Your task to perform on an android device: Do I have any events today? Image 0: 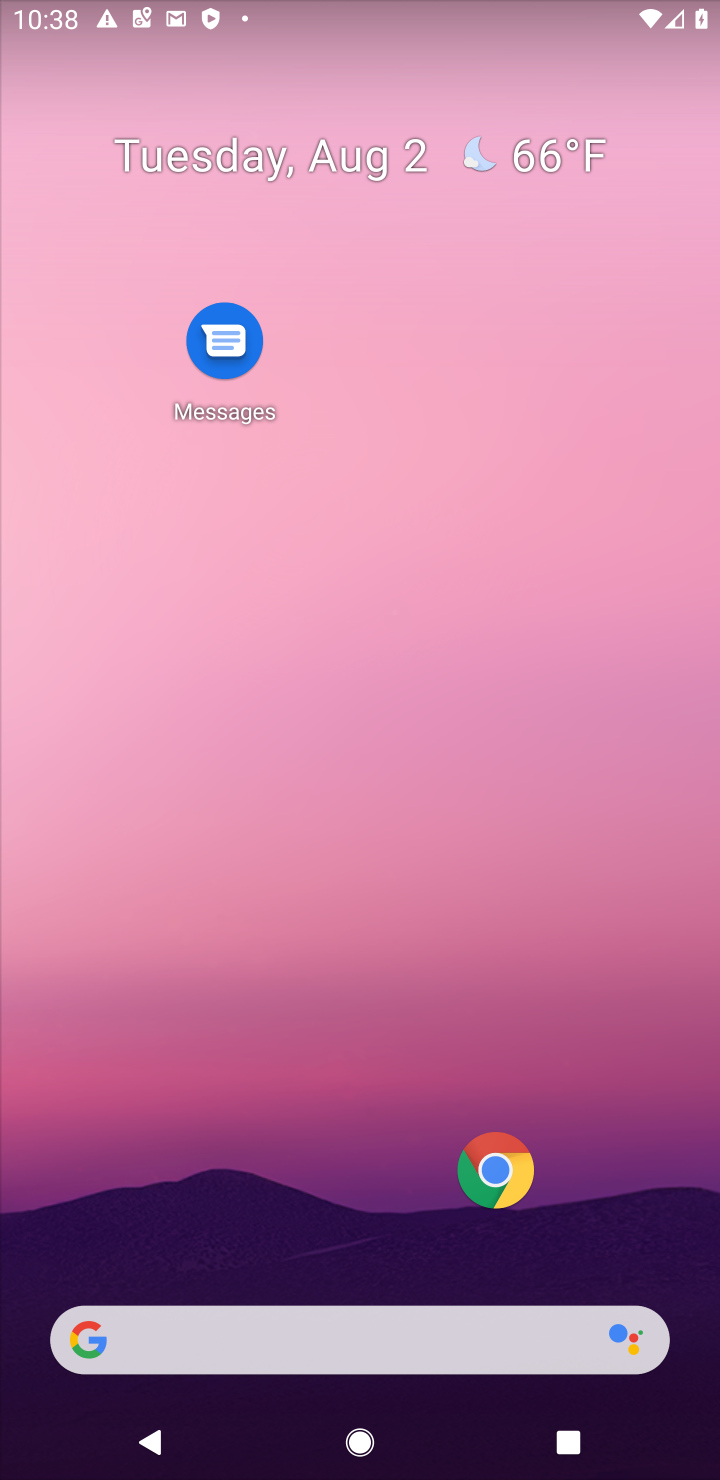
Step 0: click (479, 283)
Your task to perform on an android device: Do I have any events today? Image 1: 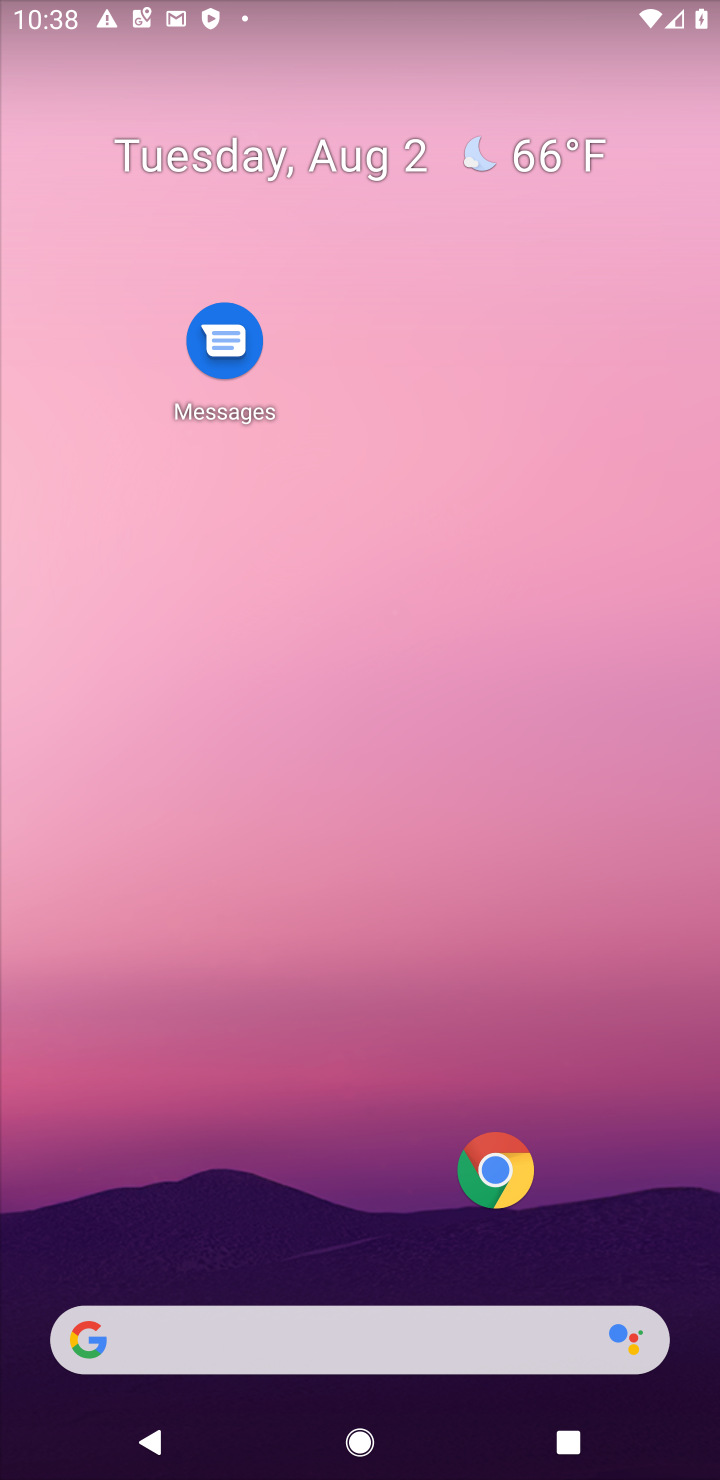
Step 1: drag from (358, 979) to (339, 351)
Your task to perform on an android device: Do I have any events today? Image 2: 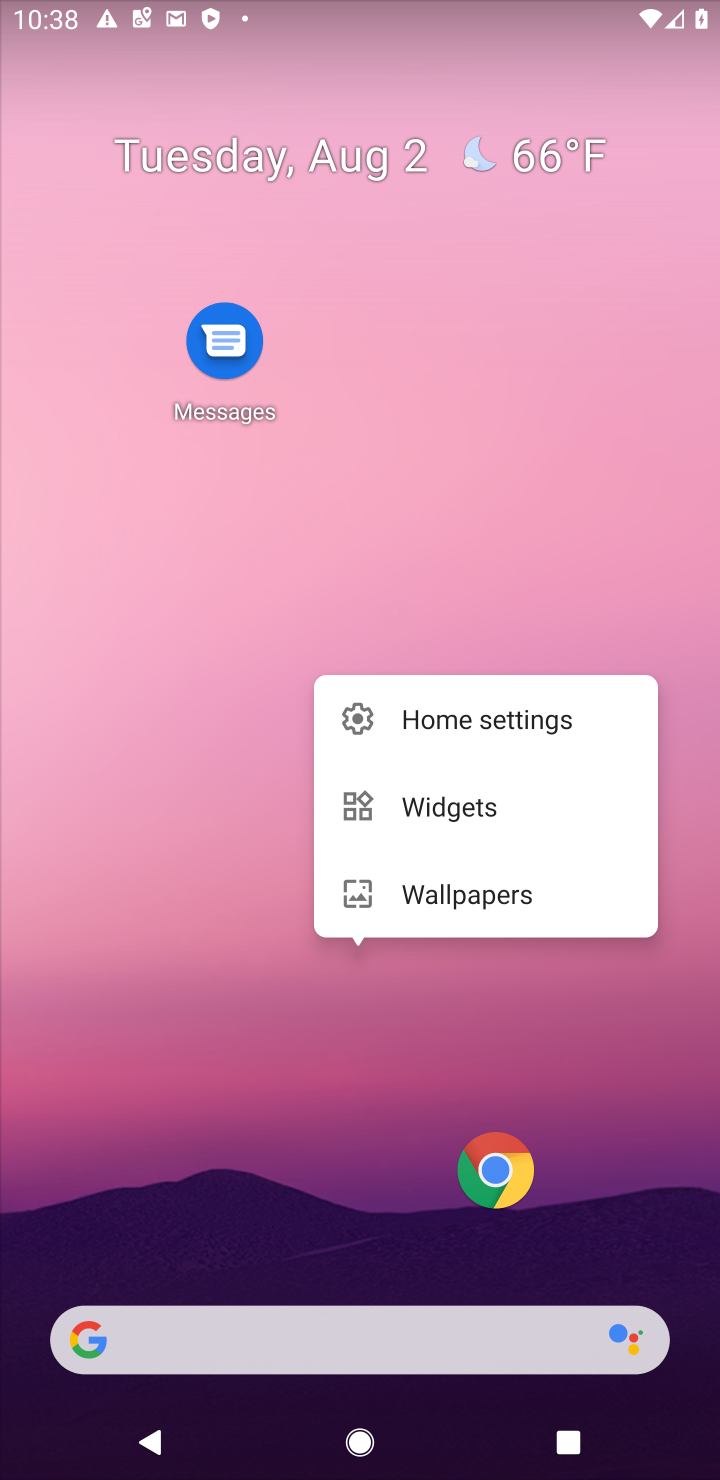
Step 2: drag from (363, 1100) to (401, 316)
Your task to perform on an android device: Do I have any events today? Image 3: 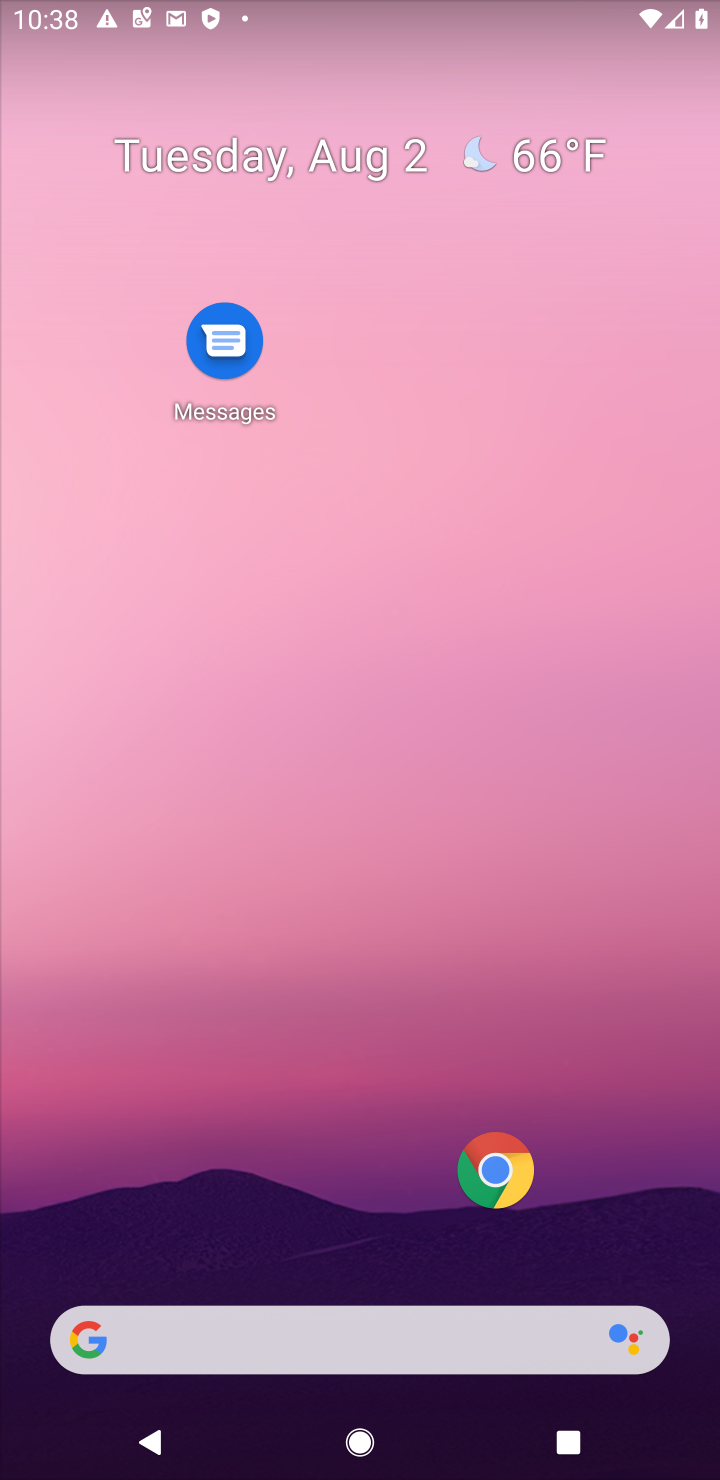
Step 3: drag from (372, 842) to (374, 529)
Your task to perform on an android device: Do I have any events today? Image 4: 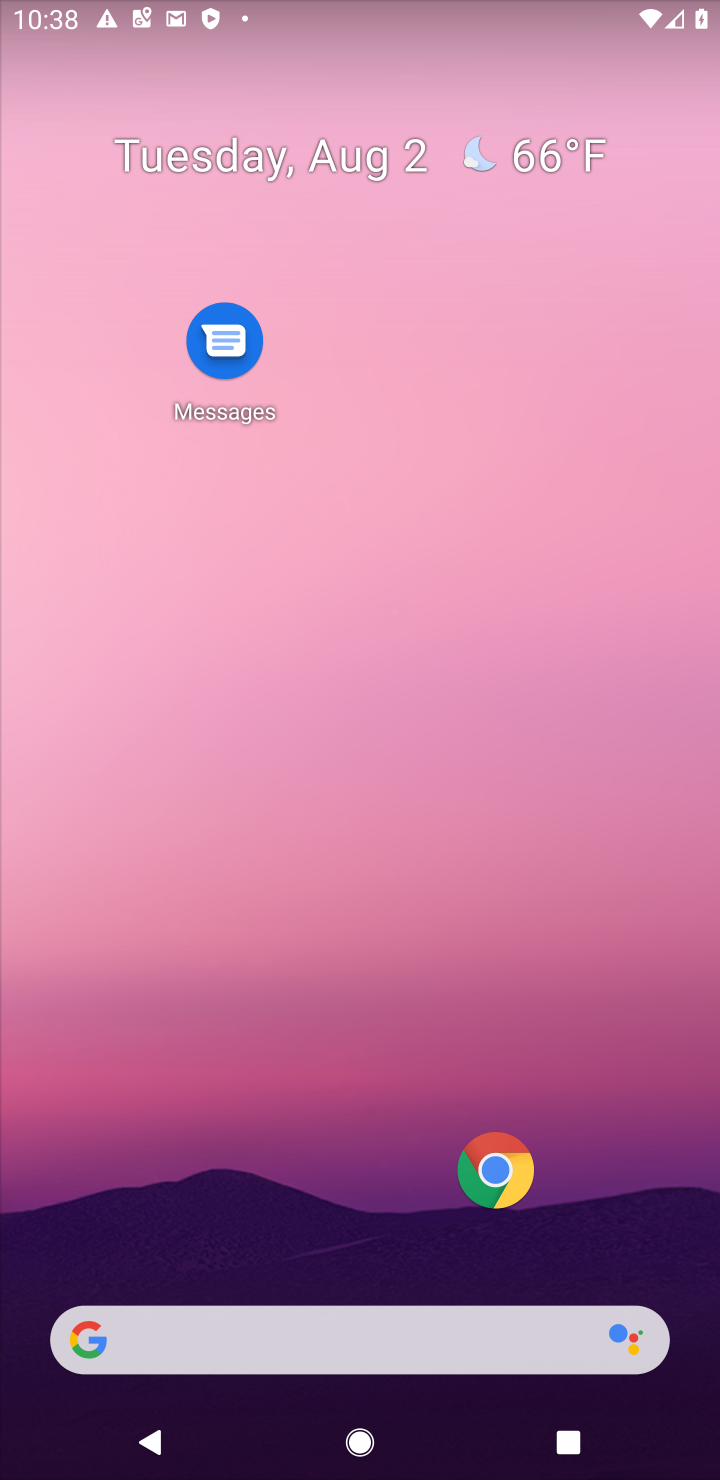
Step 4: drag from (291, 1203) to (428, 238)
Your task to perform on an android device: Do I have any events today? Image 5: 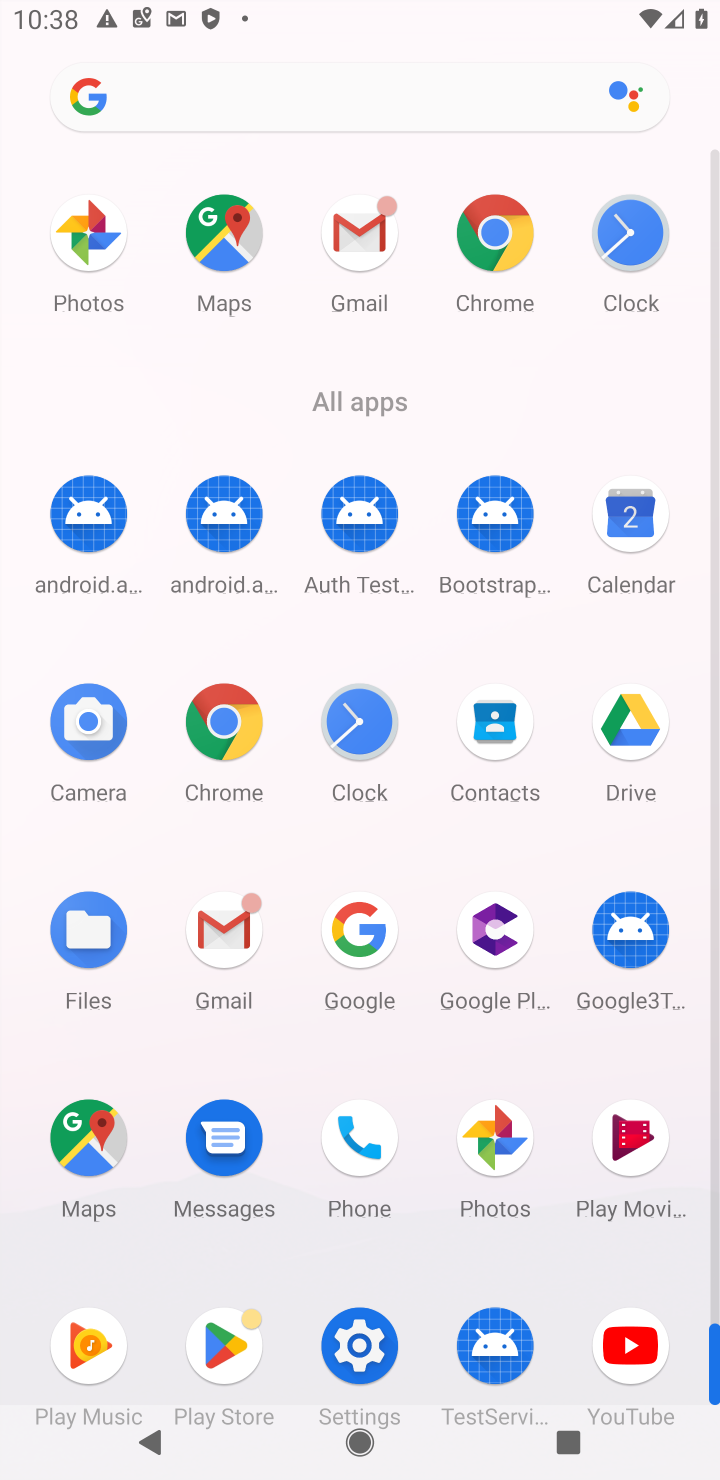
Step 5: click (626, 487)
Your task to perform on an android device: Do I have any events today? Image 6: 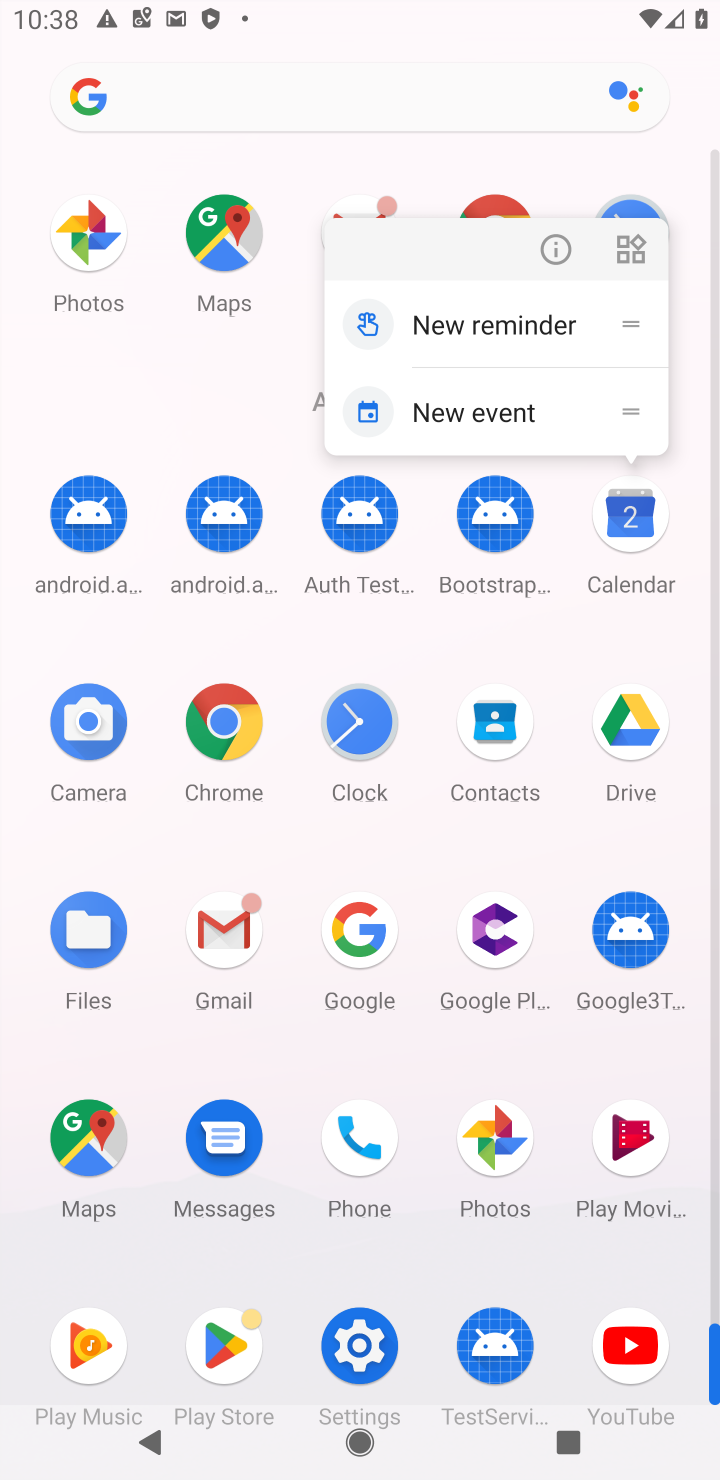
Step 6: click (548, 240)
Your task to perform on an android device: Do I have any events today? Image 7: 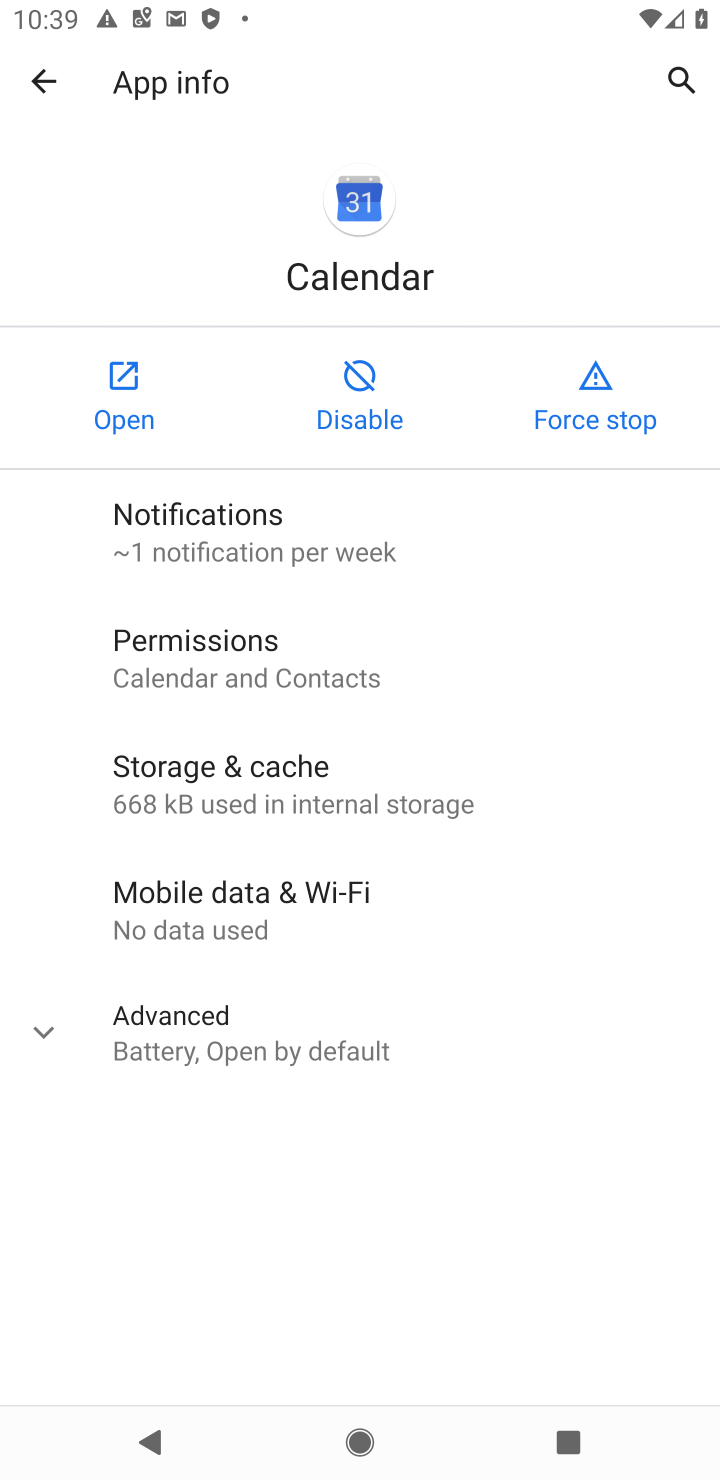
Step 7: click (137, 387)
Your task to perform on an android device: Do I have any events today? Image 8: 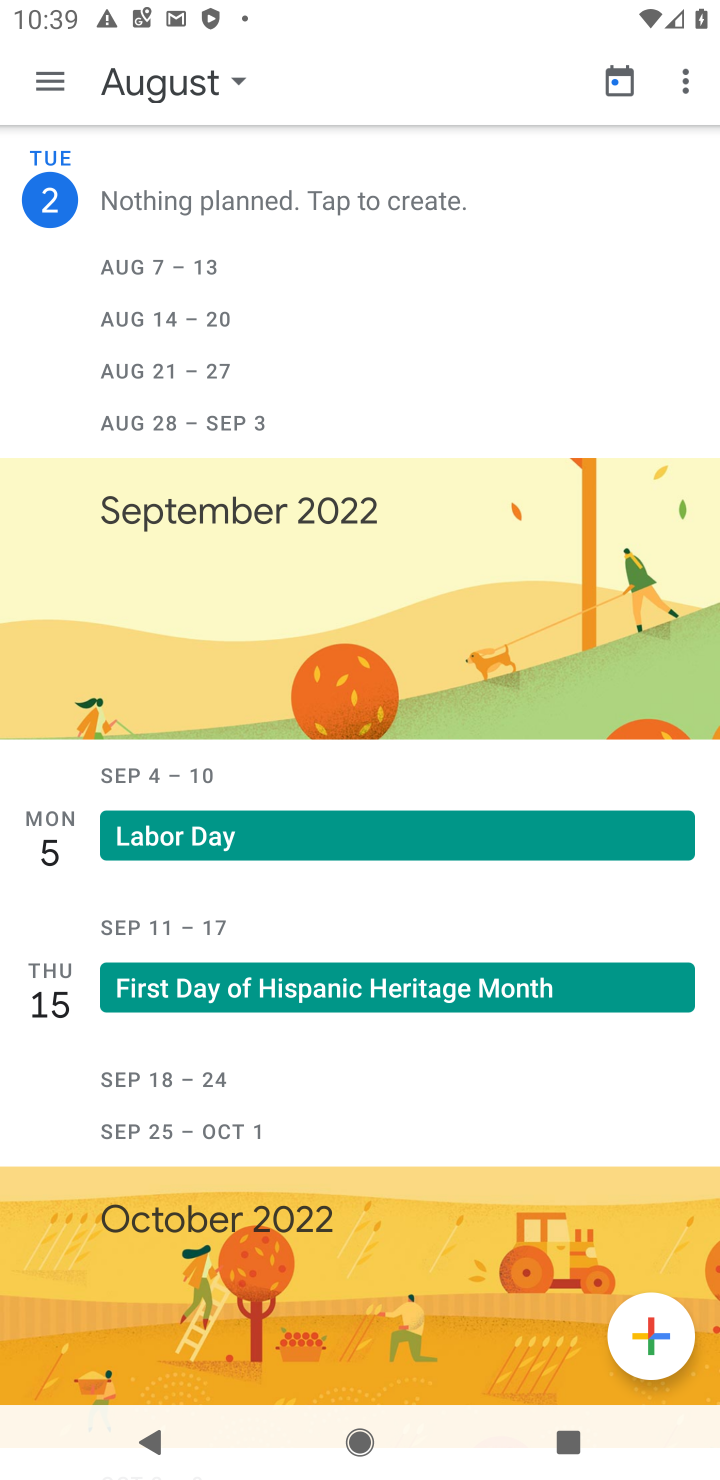
Step 8: click (616, 74)
Your task to perform on an android device: Do I have any events today? Image 9: 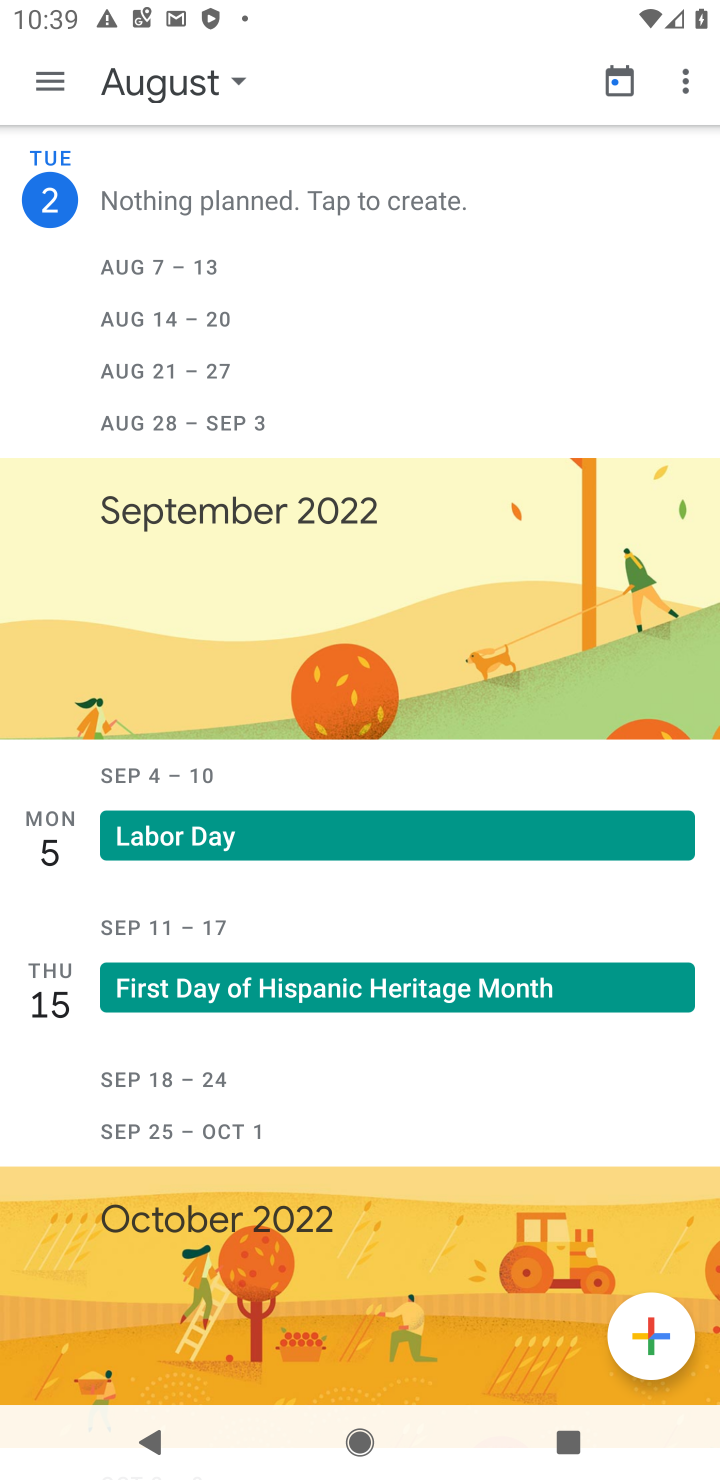
Step 9: click (604, 67)
Your task to perform on an android device: Do I have any events today? Image 10: 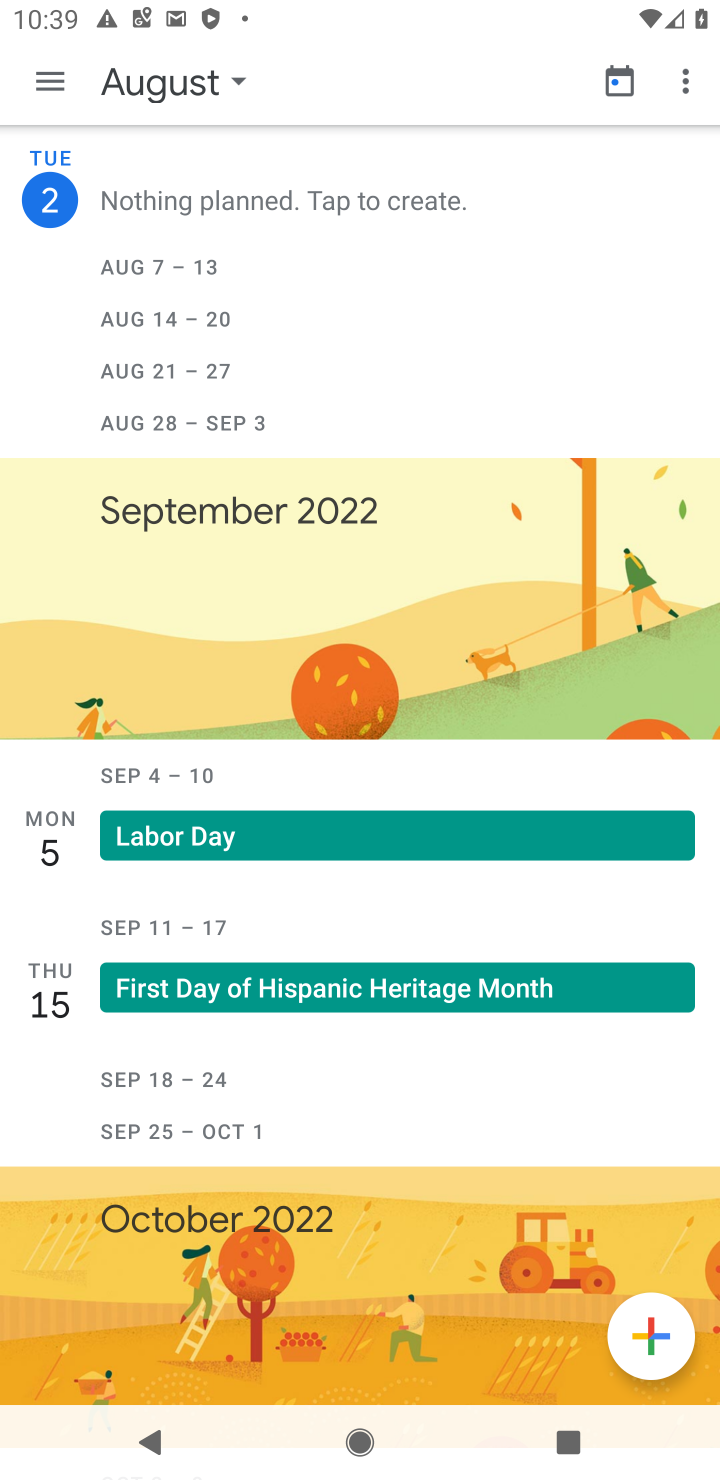
Step 10: task complete